Your task to perform on an android device: clear all cookies in the chrome app Image 0: 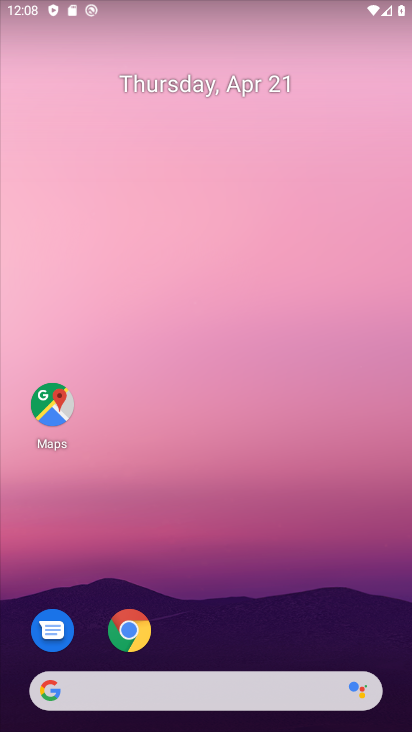
Step 0: drag from (261, 564) to (226, 21)
Your task to perform on an android device: clear all cookies in the chrome app Image 1: 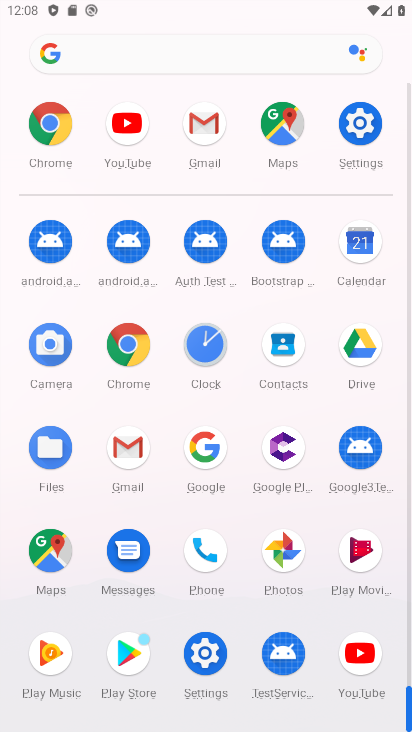
Step 1: click (62, 129)
Your task to perform on an android device: clear all cookies in the chrome app Image 2: 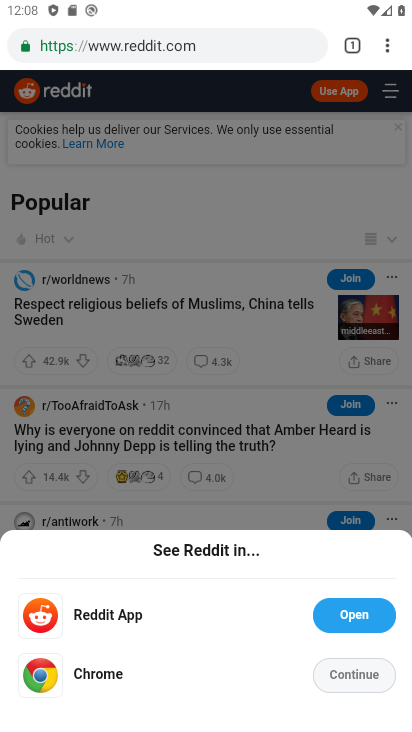
Step 2: drag from (392, 31) to (227, 269)
Your task to perform on an android device: clear all cookies in the chrome app Image 3: 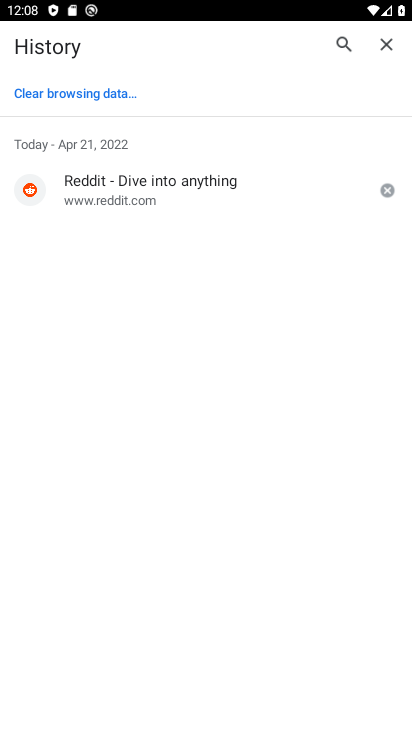
Step 3: click (37, 98)
Your task to perform on an android device: clear all cookies in the chrome app Image 4: 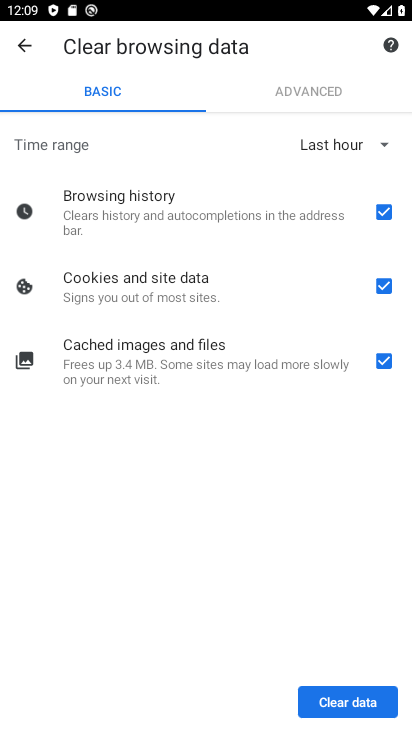
Step 4: click (382, 214)
Your task to perform on an android device: clear all cookies in the chrome app Image 5: 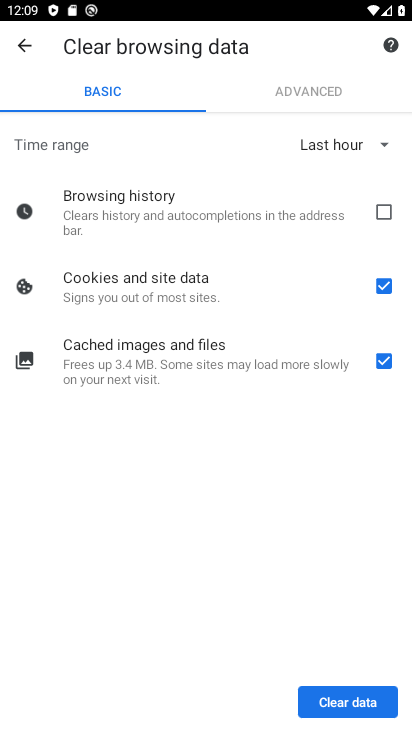
Step 5: click (382, 360)
Your task to perform on an android device: clear all cookies in the chrome app Image 6: 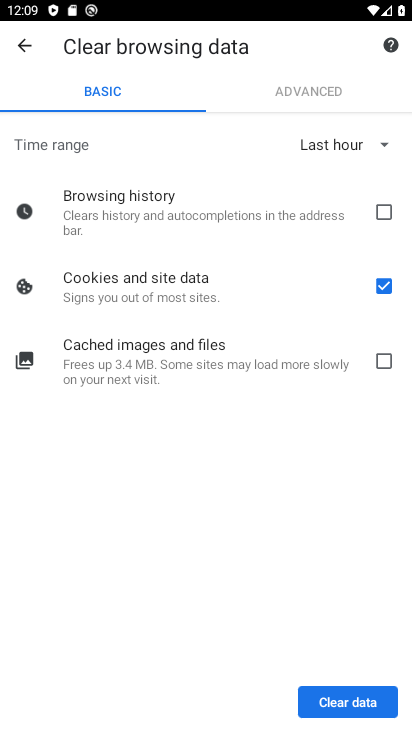
Step 6: click (349, 706)
Your task to perform on an android device: clear all cookies in the chrome app Image 7: 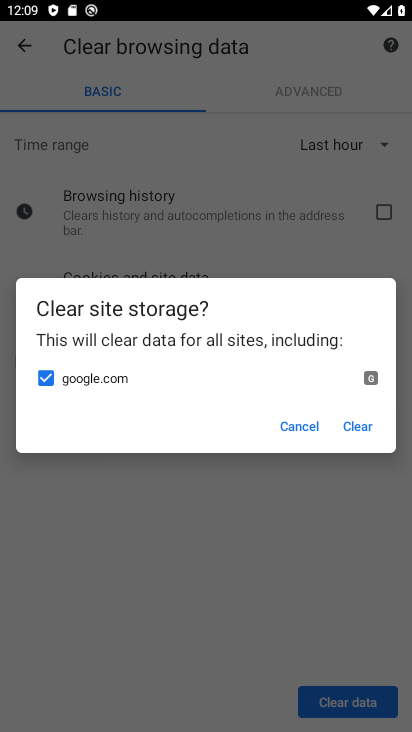
Step 7: click (368, 426)
Your task to perform on an android device: clear all cookies in the chrome app Image 8: 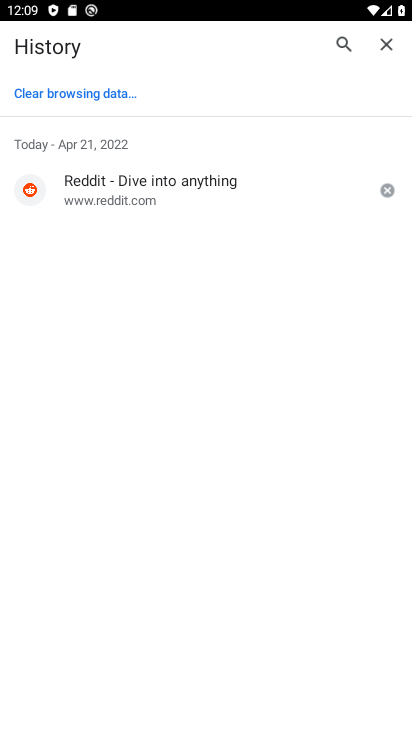
Step 8: task complete